Your task to perform on an android device: Open notification settings Image 0: 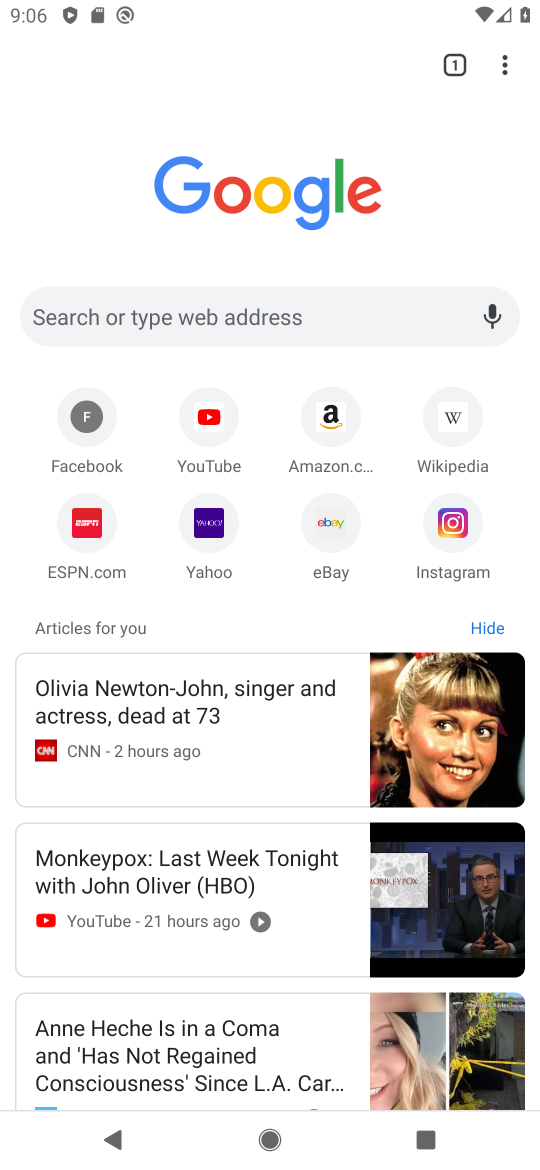
Step 0: press home button
Your task to perform on an android device: Open notification settings Image 1: 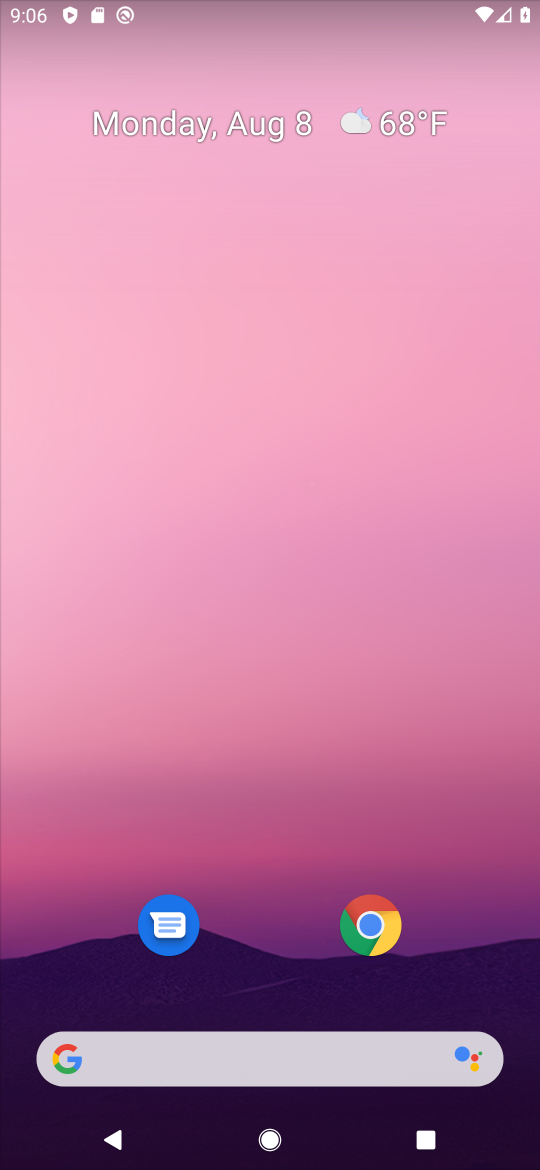
Step 1: drag from (254, 797) to (131, 2)
Your task to perform on an android device: Open notification settings Image 2: 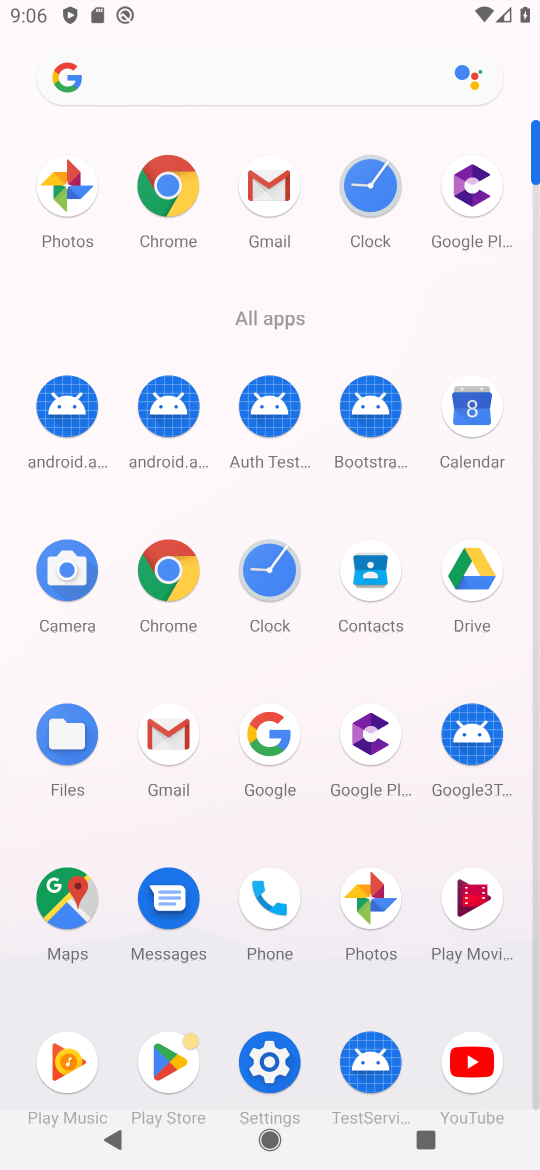
Step 2: click (276, 1062)
Your task to perform on an android device: Open notification settings Image 3: 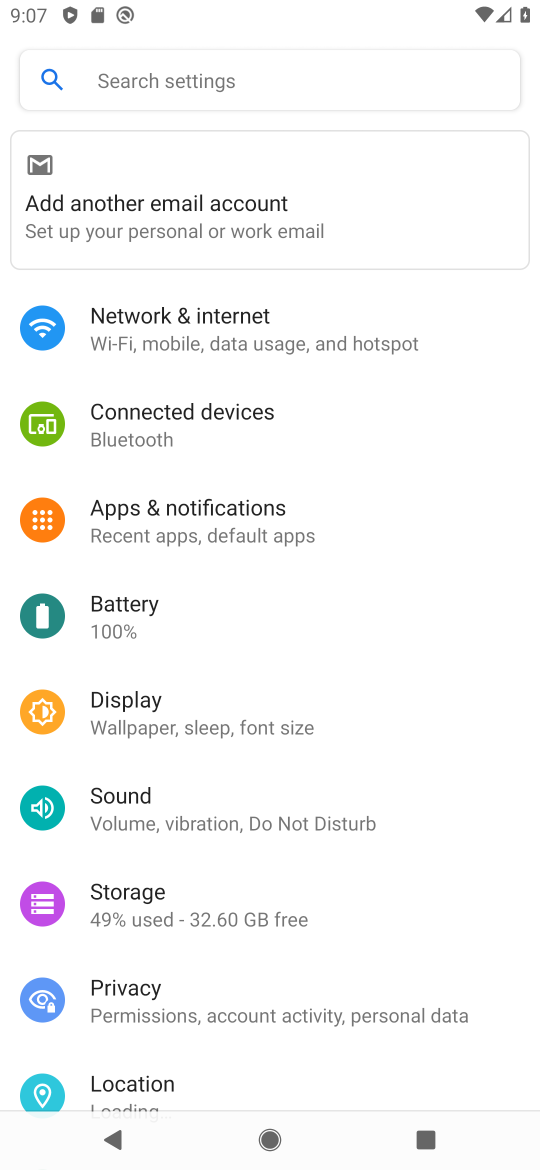
Step 3: click (223, 516)
Your task to perform on an android device: Open notification settings Image 4: 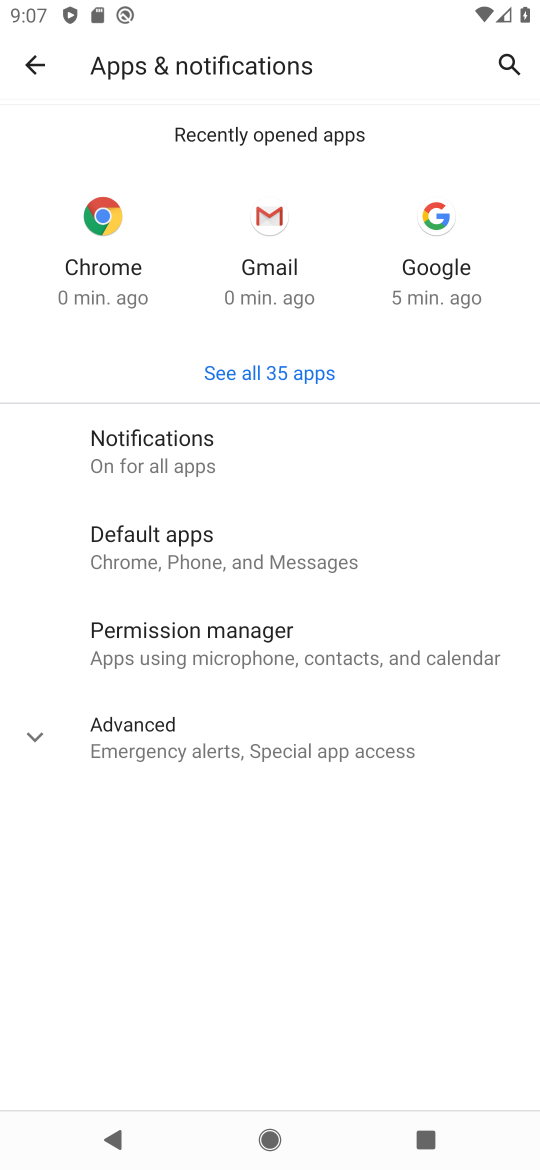
Step 4: click (135, 442)
Your task to perform on an android device: Open notification settings Image 5: 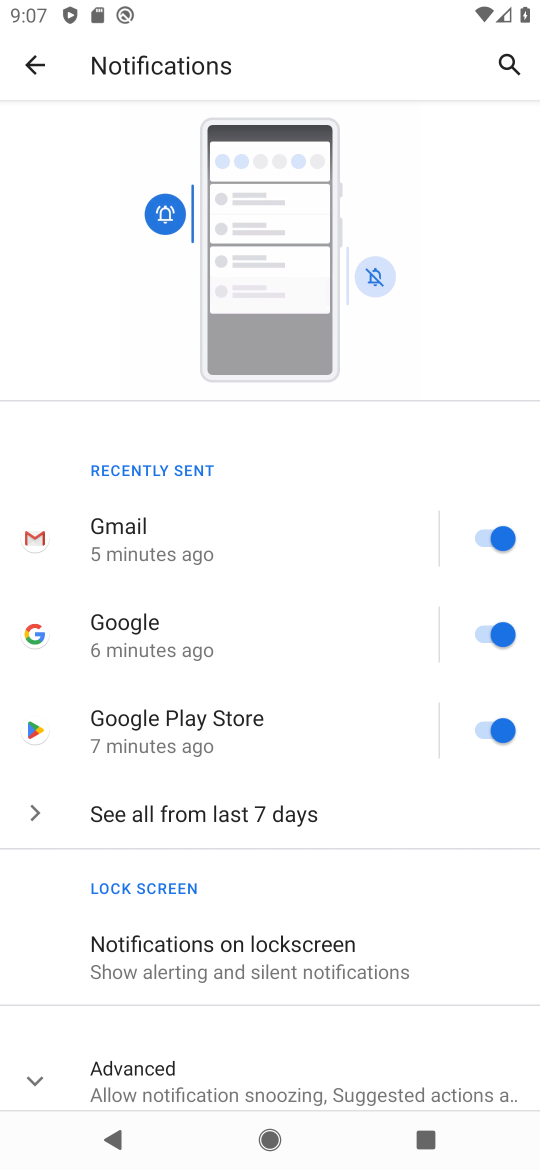
Step 5: task complete